Your task to perform on an android device: open sync settings in chrome Image 0: 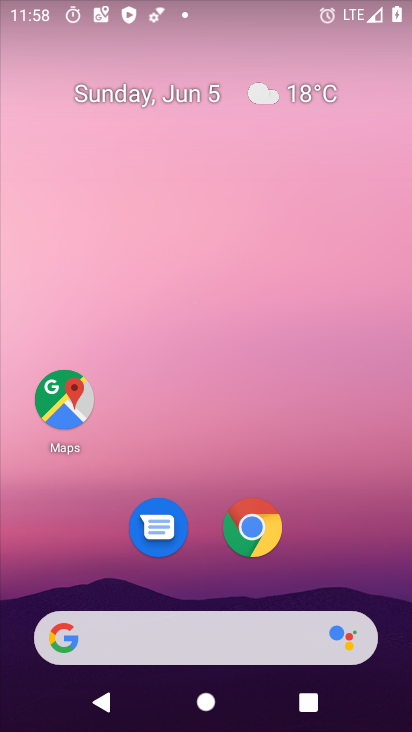
Step 0: click (268, 522)
Your task to perform on an android device: open sync settings in chrome Image 1: 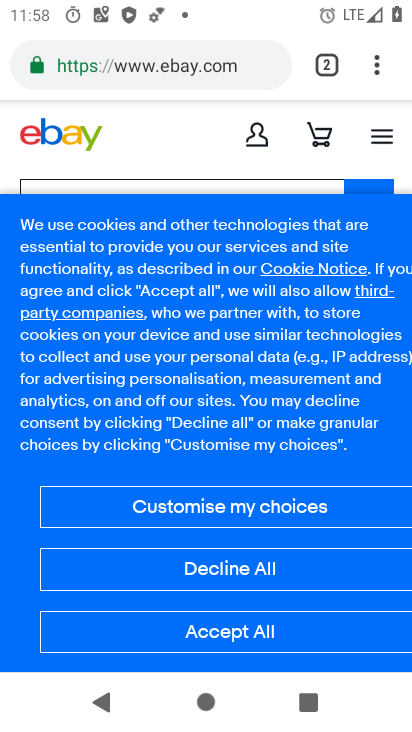
Step 1: click (376, 63)
Your task to perform on an android device: open sync settings in chrome Image 2: 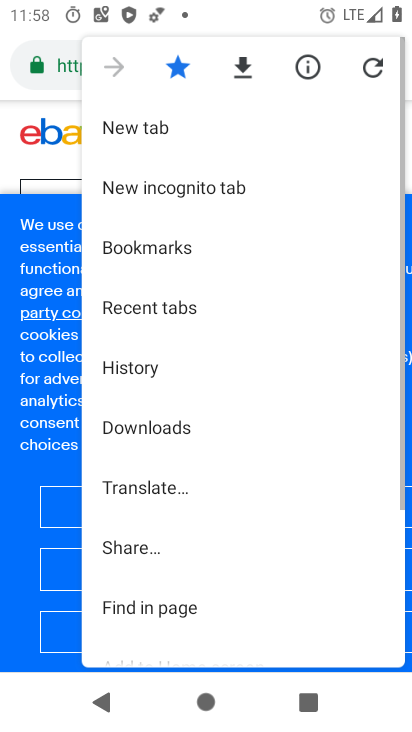
Step 2: drag from (259, 543) to (295, 90)
Your task to perform on an android device: open sync settings in chrome Image 3: 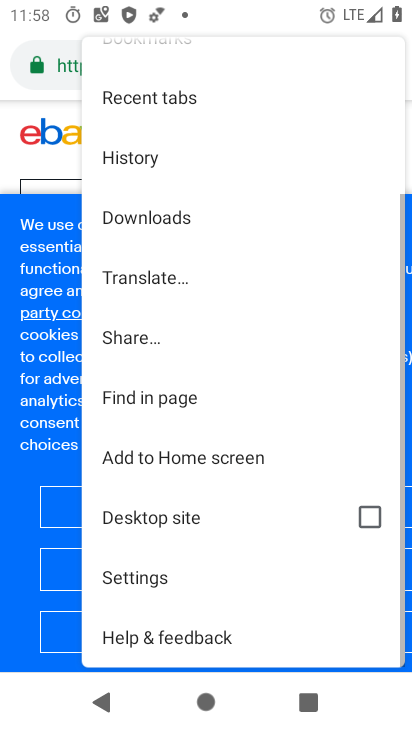
Step 3: click (215, 579)
Your task to perform on an android device: open sync settings in chrome Image 4: 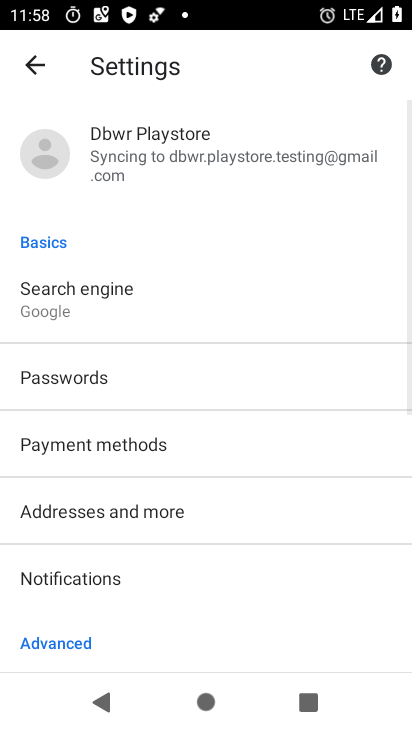
Step 4: drag from (284, 347) to (292, 124)
Your task to perform on an android device: open sync settings in chrome Image 5: 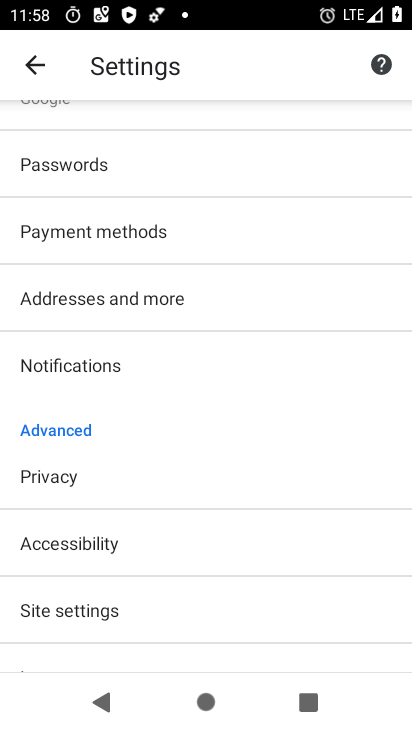
Step 5: drag from (216, 543) to (209, 129)
Your task to perform on an android device: open sync settings in chrome Image 6: 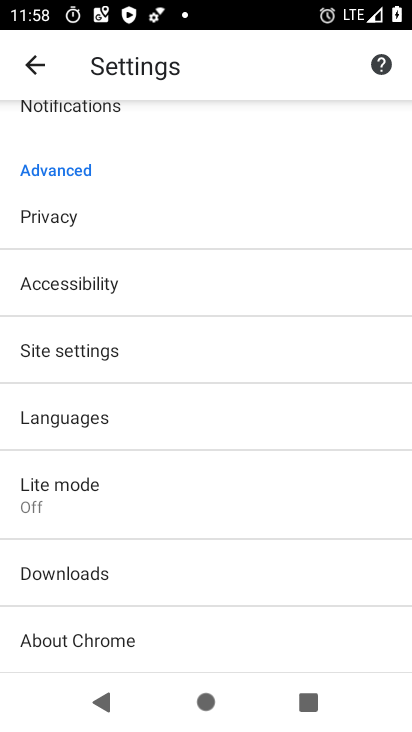
Step 6: click (156, 357)
Your task to perform on an android device: open sync settings in chrome Image 7: 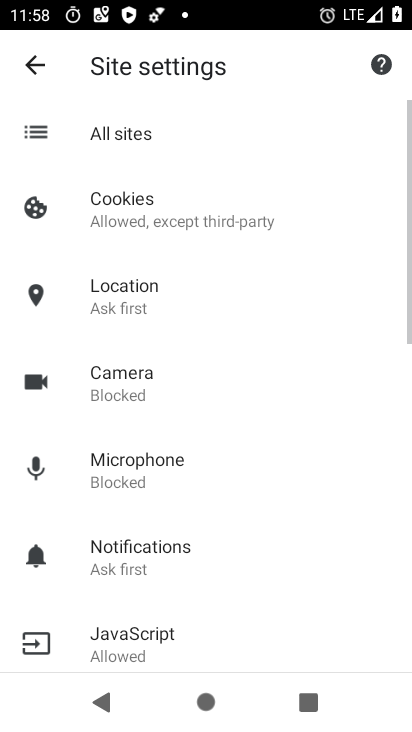
Step 7: drag from (234, 626) to (227, 173)
Your task to perform on an android device: open sync settings in chrome Image 8: 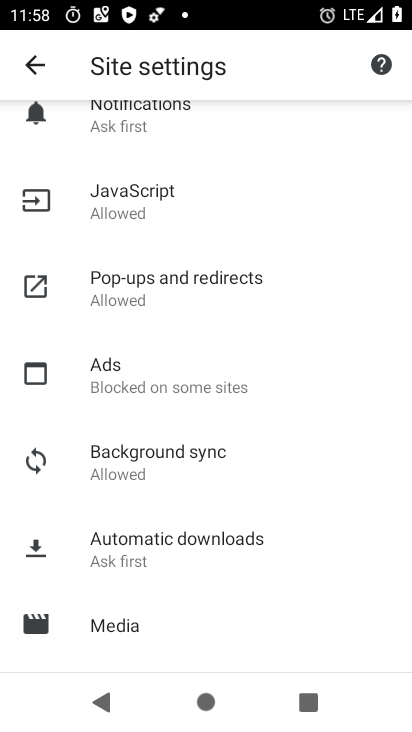
Step 8: click (167, 473)
Your task to perform on an android device: open sync settings in chrome Image 9: 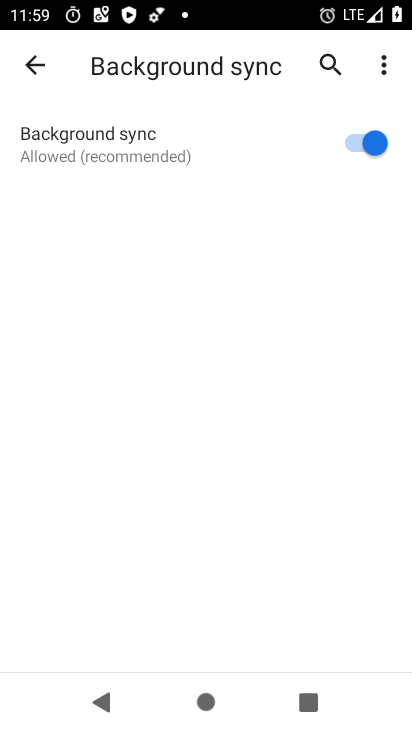
Step 9: task complete